Your task to perform on an android device: see creations saved in the google photos Image 0: 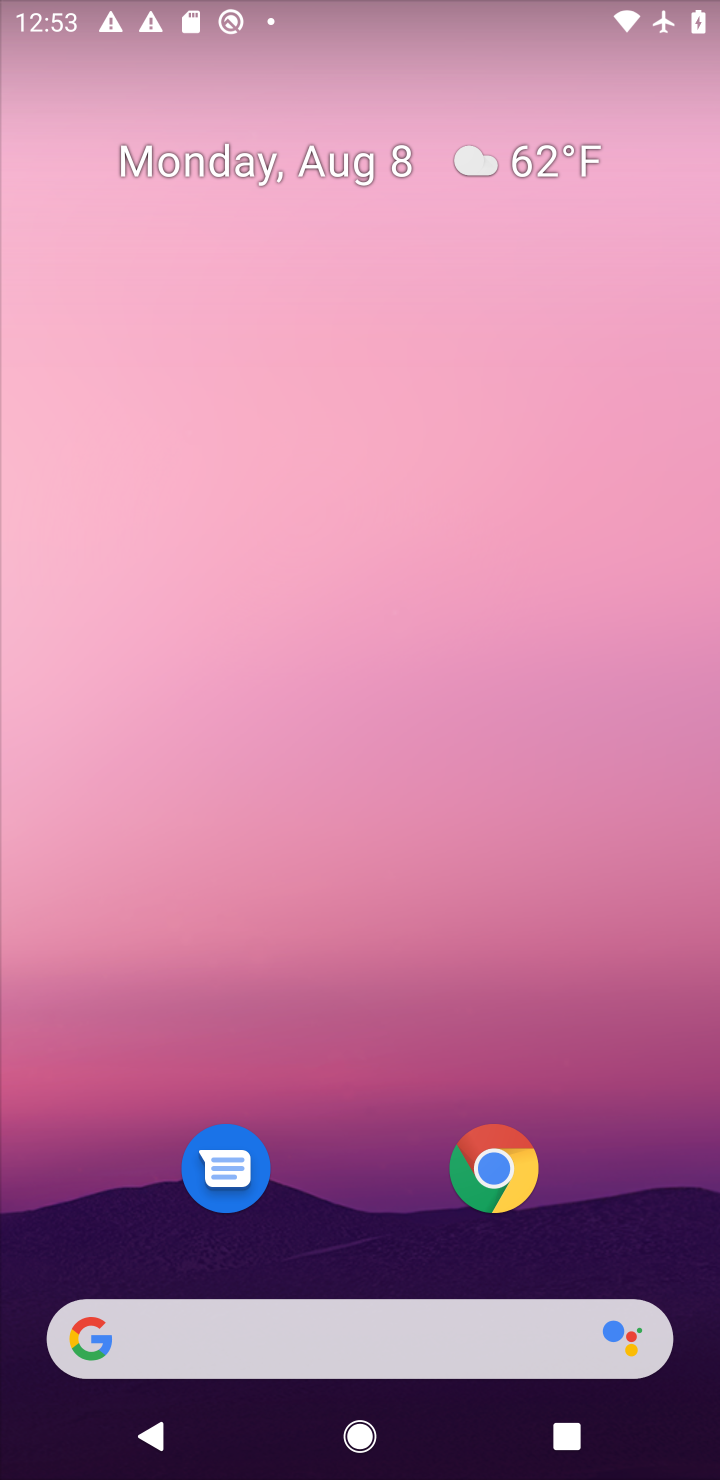
Step 0: drag from (430, 1304) to (327, 176)
Your task to perform on an android device: see creations saved in the google photos Image 1: 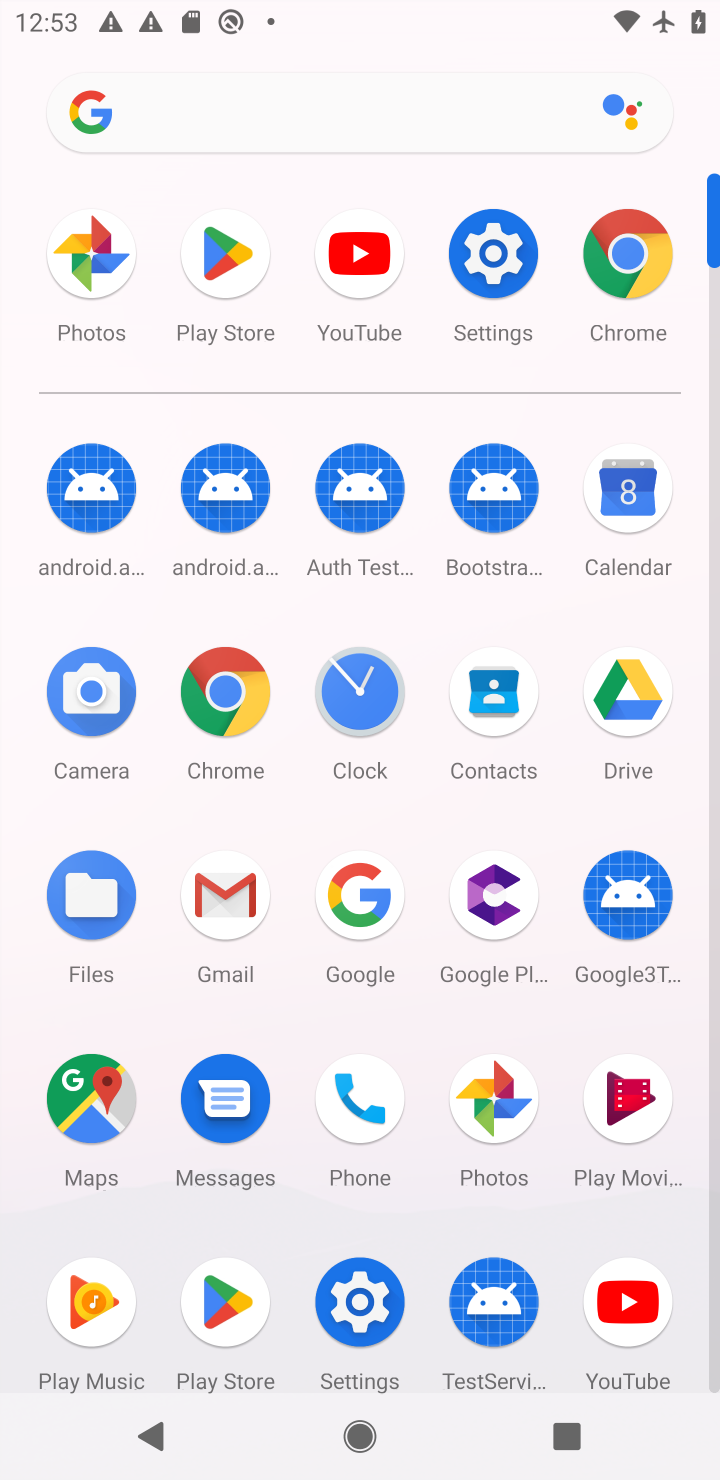
Step 1: click (467, 1140)
Your task to perform on an android device: see creations saved in the google photos Image 2: 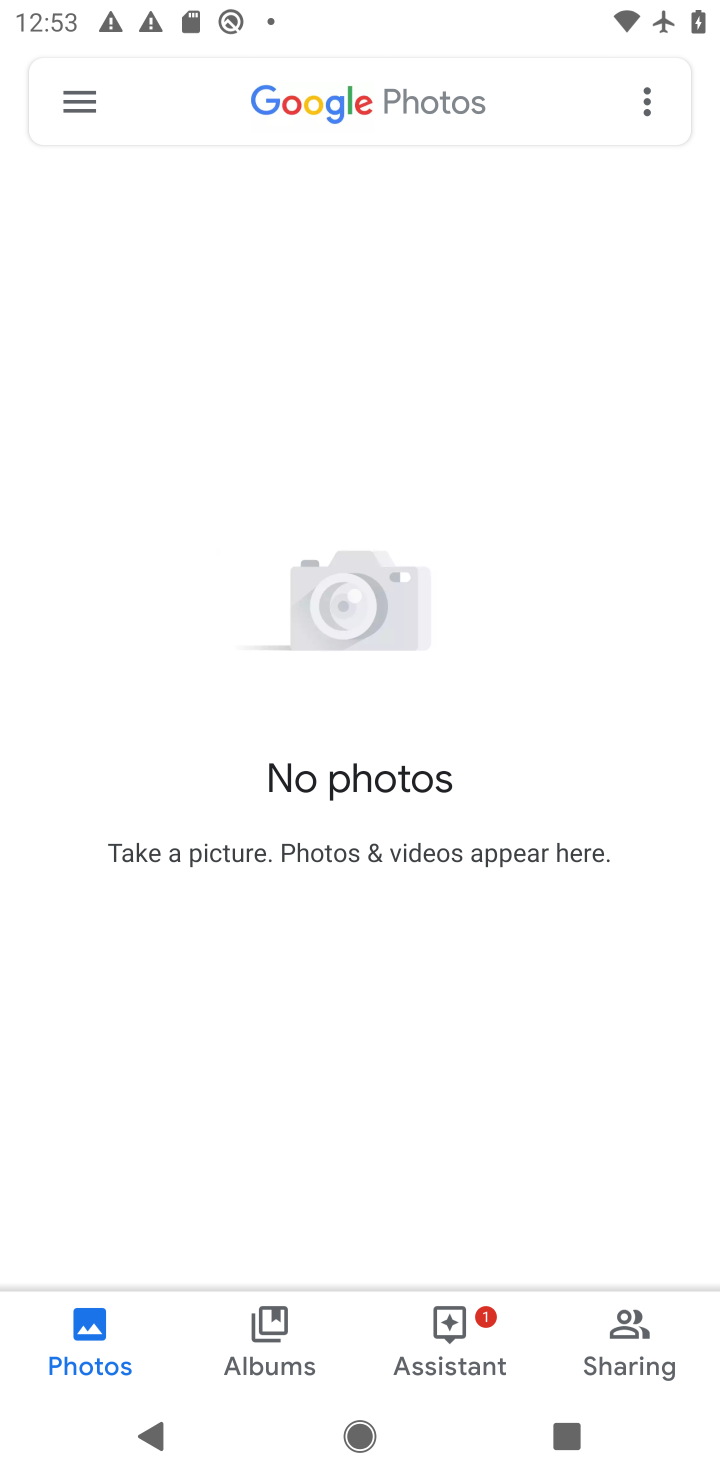
Step 2: task complete